Your task to perform on an android device: install app "Indeed Job Search" Image 0: 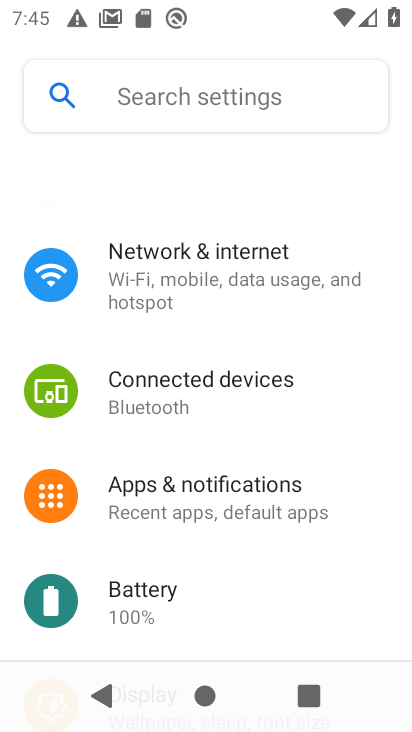
Step 0: press home button
Your task to perform on an android device: install app "Indeed Job Search" Image 1: 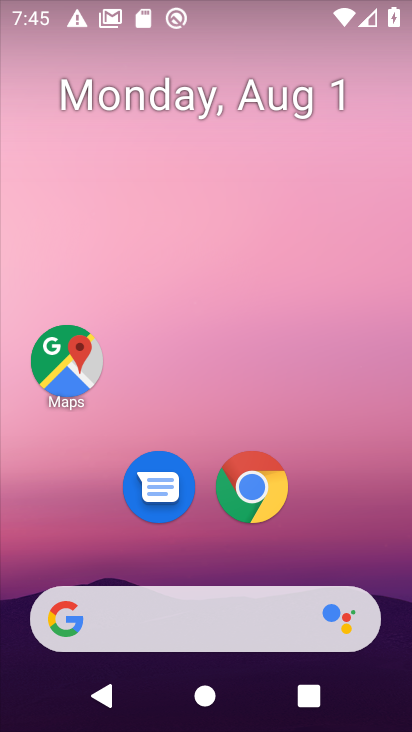
Step 1: drag from (377, 528) to (346, 65)
Your task to perform on an android device: install app "Indeed Job Search" Image 2: 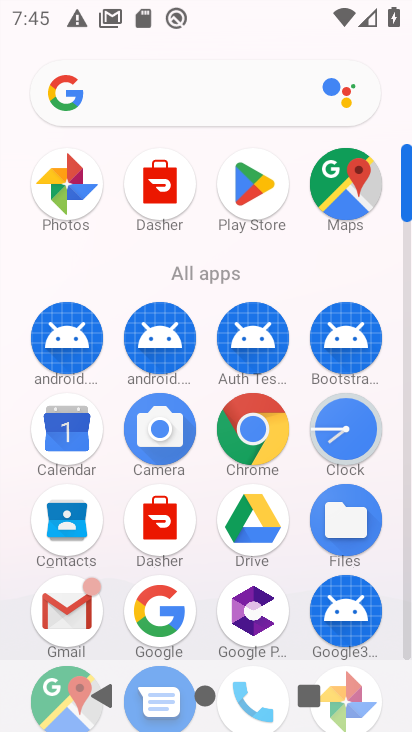
Step 2: click (257, 198)
Your task to perform on an android device: install app "Indeed Job Search" Image 3: 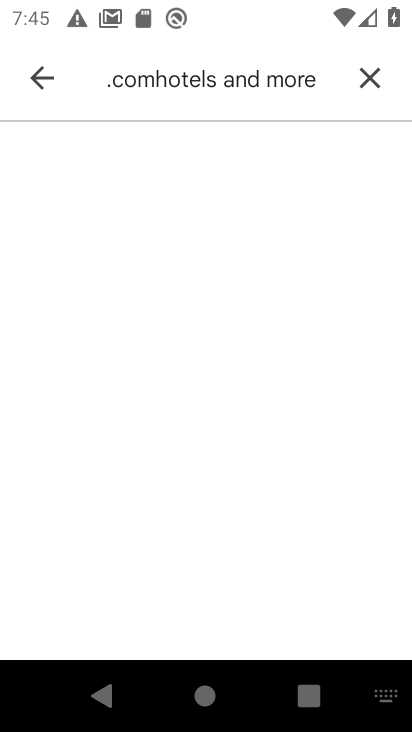
Step 3: click (369, 70)
Your task to perform on an android device: install app "Indeed Job Search" Image 4: 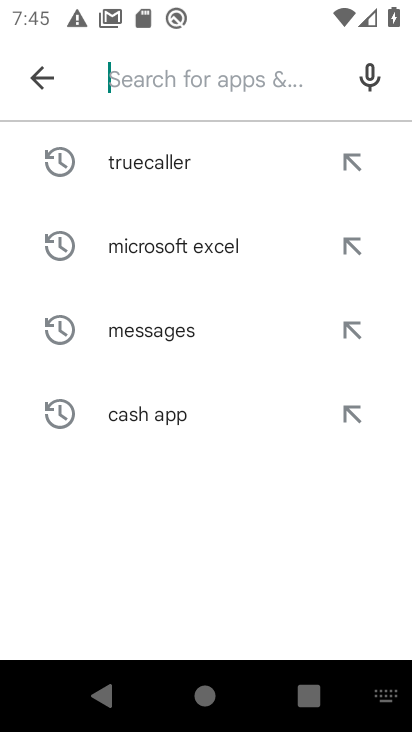
Step 4: click (235, 84)
Your task to perform on an android device: install app "Indeed Job Search" Image 5: 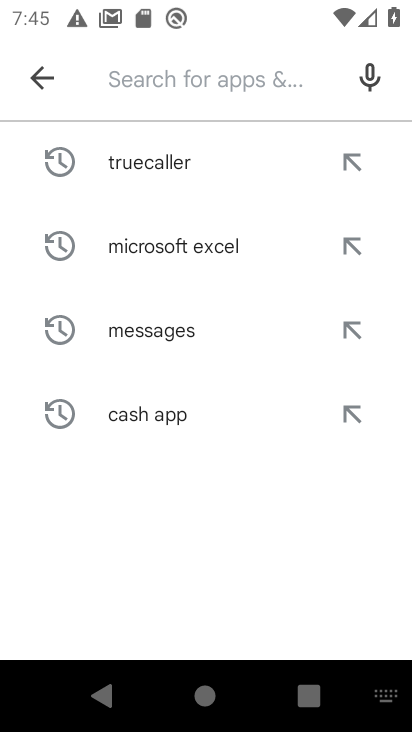
Step 5: type "indeed job search"
Your task to perform on an android device: install app "Indeed Job Search" Image 6: 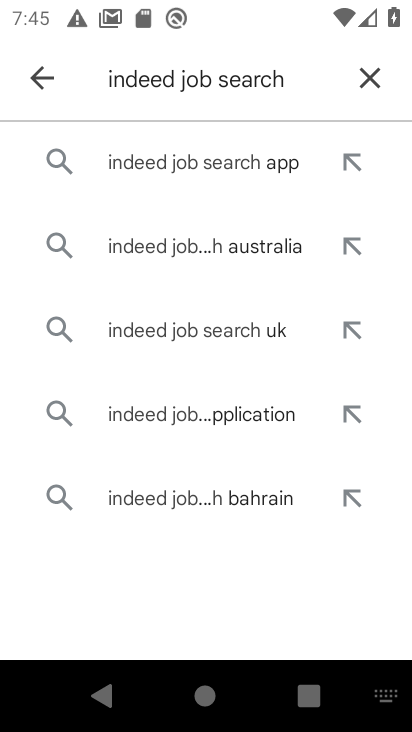
Step 6: click (226, 168)
Your task to perform on an android device: install app "Indeed Job Search" Image 7: 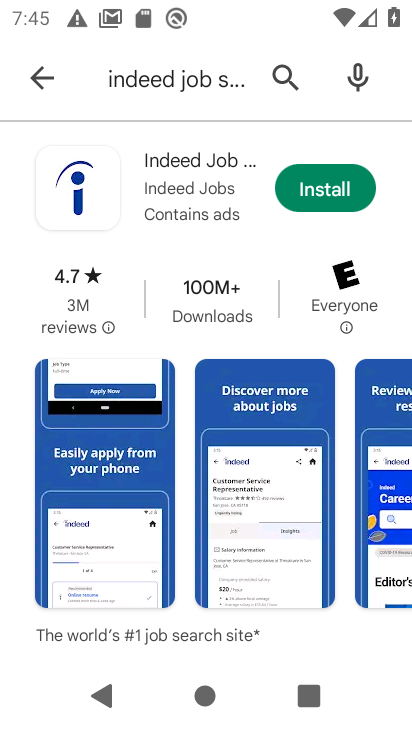
Step 7: click (342, 189)
Your task to perform on an android device: install app "Indeed Job Search" Image 8: 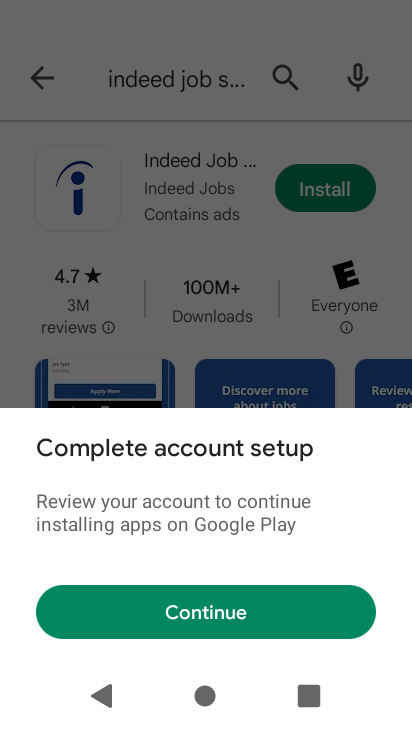
Step 8: click (247, 613)
Your task to perform on an android device: install app "Indeed Job Search" Image 9: 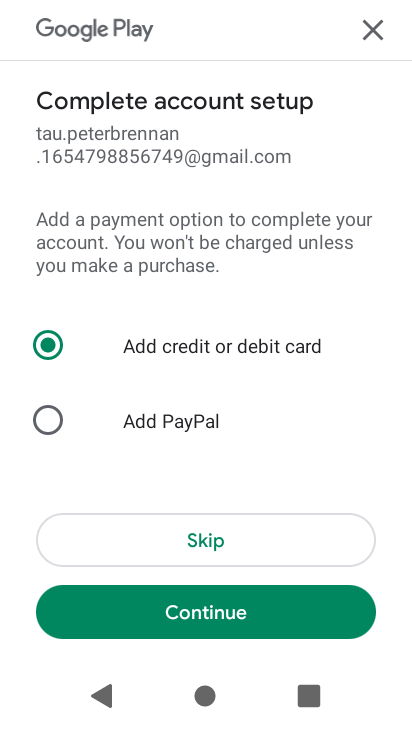
Step 9: click (268, 547)
Your task to perform on an android device: install app "Indeed Job Search" Image 10: 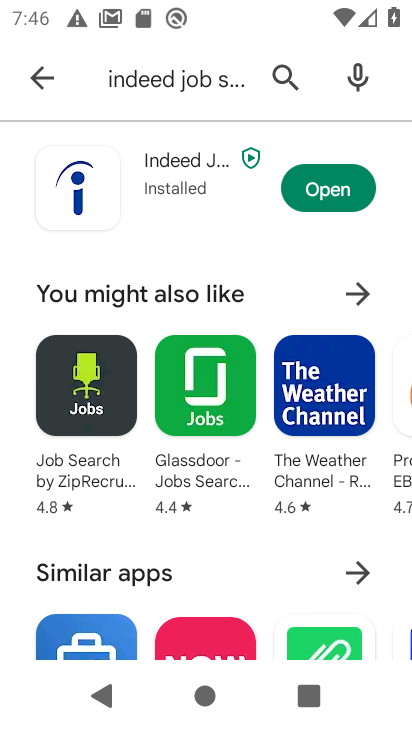
Step 10: task complete